Your task to perform on an android device: turn on priority inbox in the gmail app Image 0: 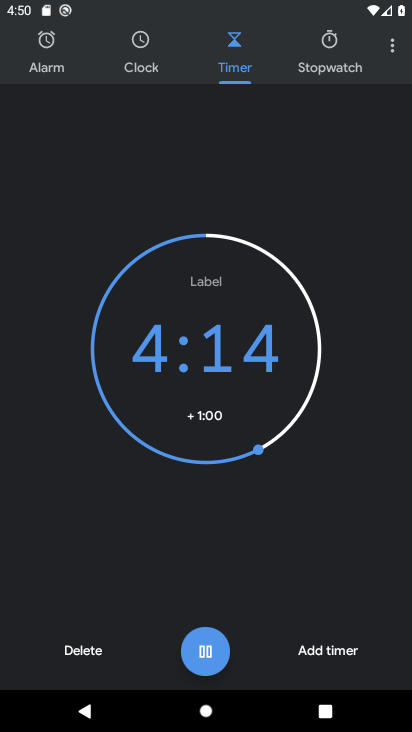
Step 0: press home button
Your task to perform on an android device: turn on priority inbox in the gmail app Image 1: 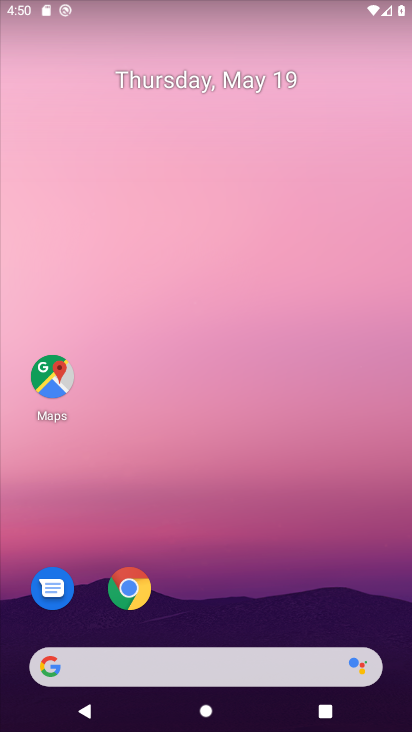
Step 1: drag from (189, 599) to (220, 108)
Your task to perform on an android device: turn on priority inbox in the gmail app Image 2: 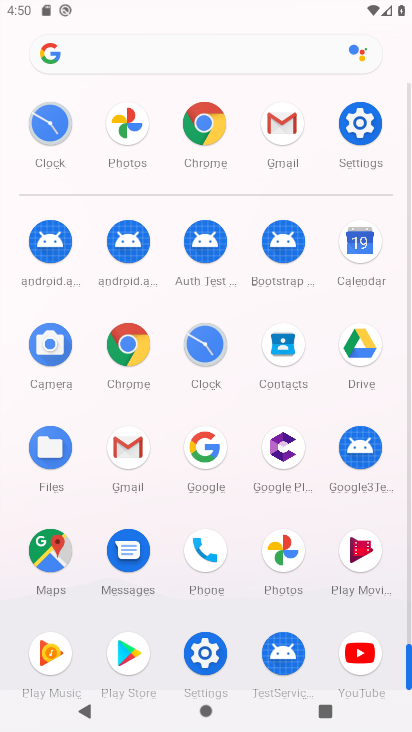
Step 2: click (133, 442)
Your task to perform on an android device: turn on priority inbox in the gmail app Image 3: 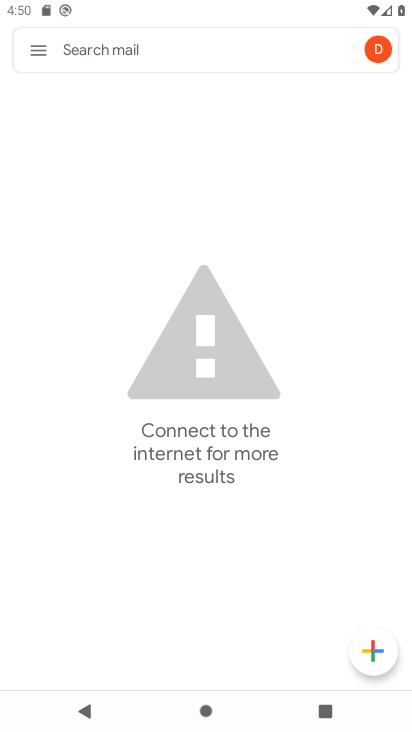
Step 3: click (38, 51)
Your task to perform on an android device: turn on priority inbox in the gmail app Image 4: 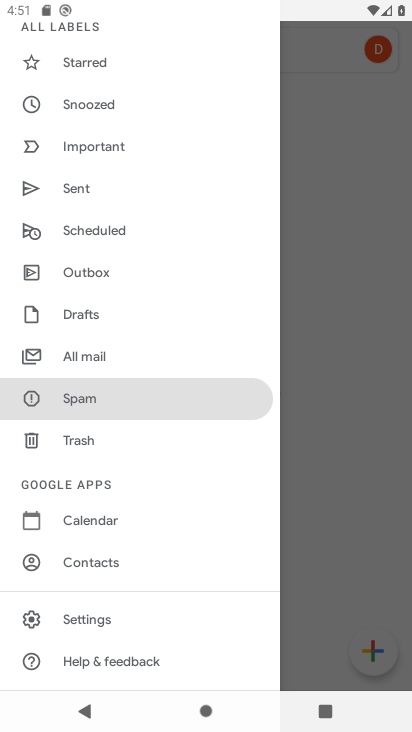
Step 4: click (97, 619)
Your task to perform on an android device: turn on priority inbox in the gmail app Image 5: 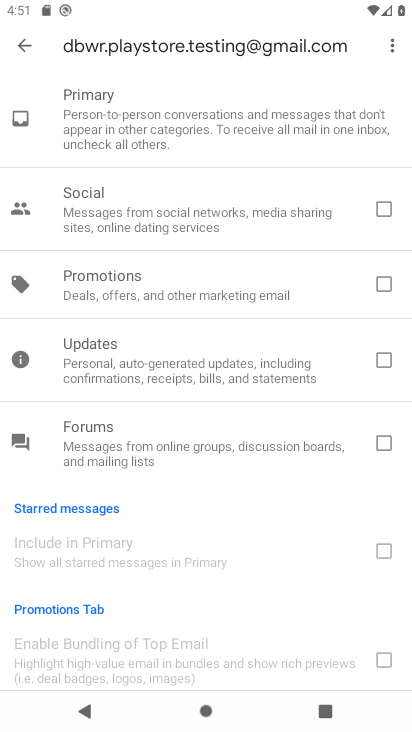
Step 5: click (23, 40)
Your task to perform on an android device: turn on priority inbox in the gmail app Image 6: 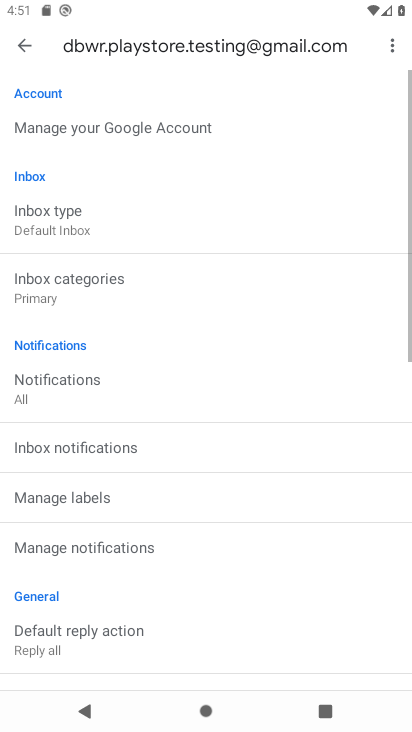
Step 6: click (82, 221)
Your task to perform on an android device: turn on priority inbox in the gmail app Image 7: 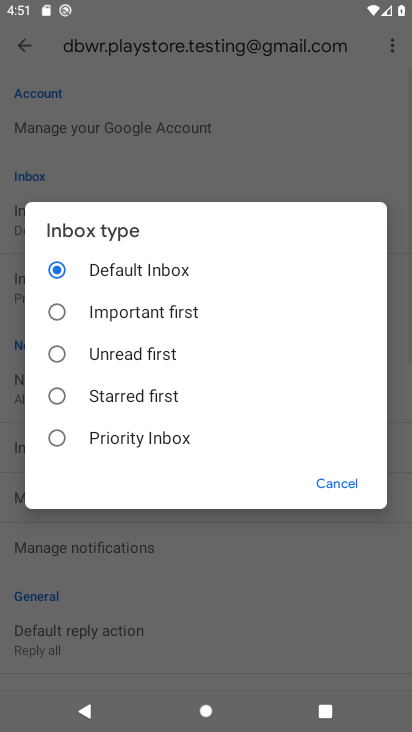
Step 7: click (112, 439)
Your task to perform on an android device: turn on priority inbox in the gmail app Image 8: 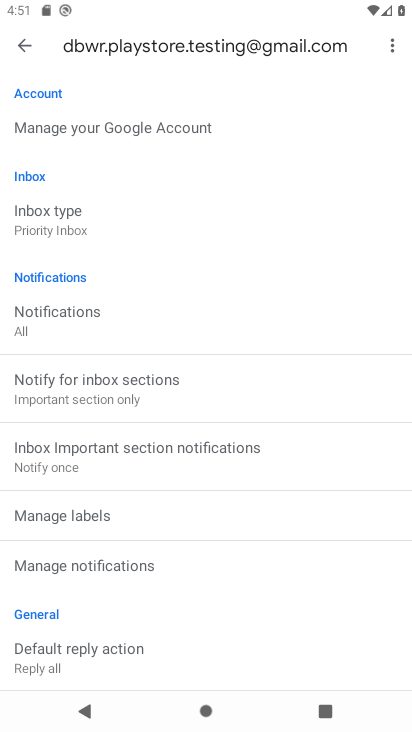
Step 8: task complete